Your task to perform on an android device: turn off smart reply in the gmail app Image 0: 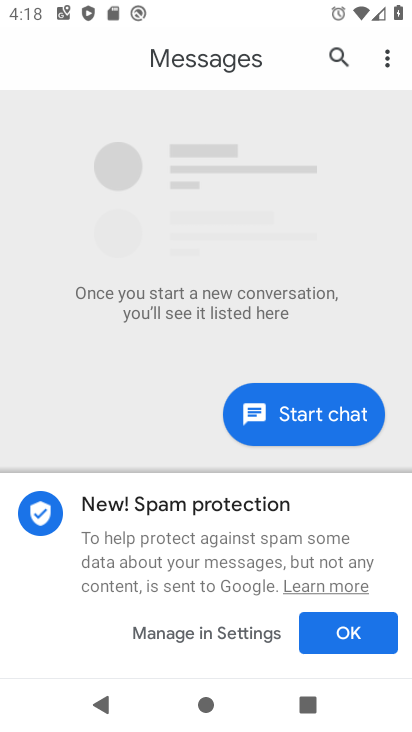
Step 0: press home button
Your task to perform on an android device: turn off smart reply in the gmail app Image 1: 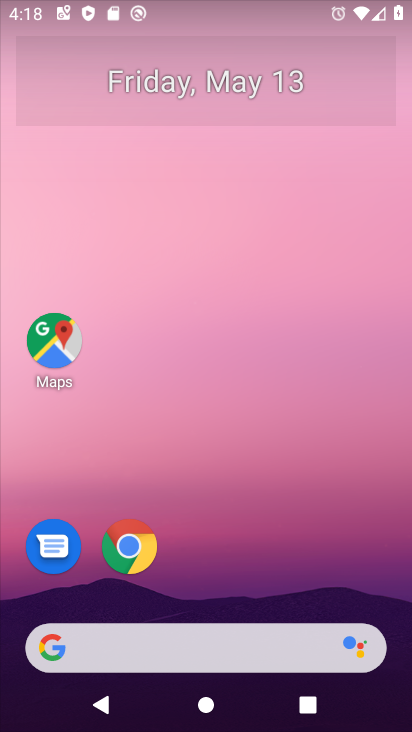
Step 1: drag from (210, 580) to (269, 8)
Your task to perform on an android device: turn off smart reply in the gmail app Image 2: 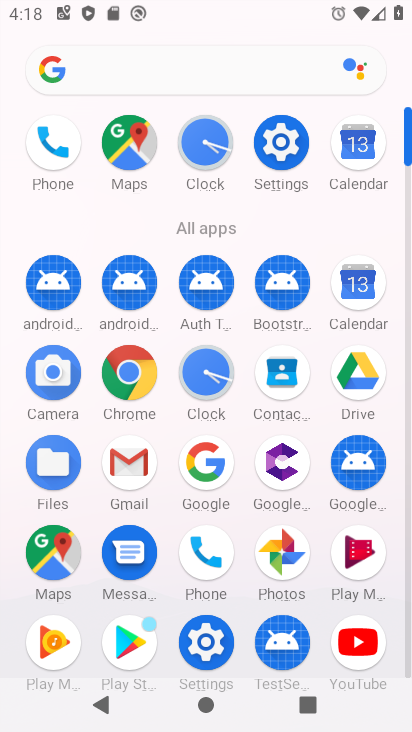
Step 2: click (121, 473)
Your task to perform on an android device: turn off smart reply in the gmail app Image 3: 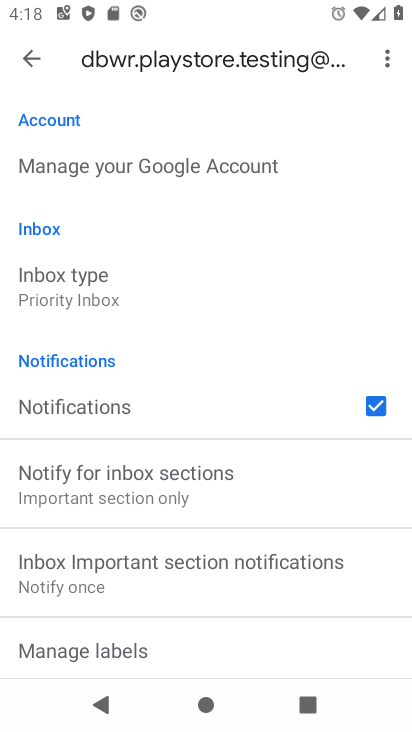
Step 3: drag from (210, 511) to (268, 98)
Your task to perform on an android device: turn off smart reply in the gmail app Image 4: 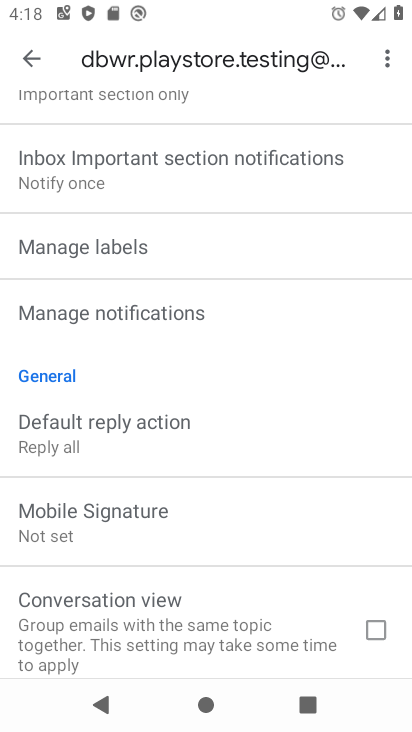
Step 4: drag from (216, 517) to (272, 41)
Your task to perform on an android device: turn off smart reply in the gmail app Image 5: 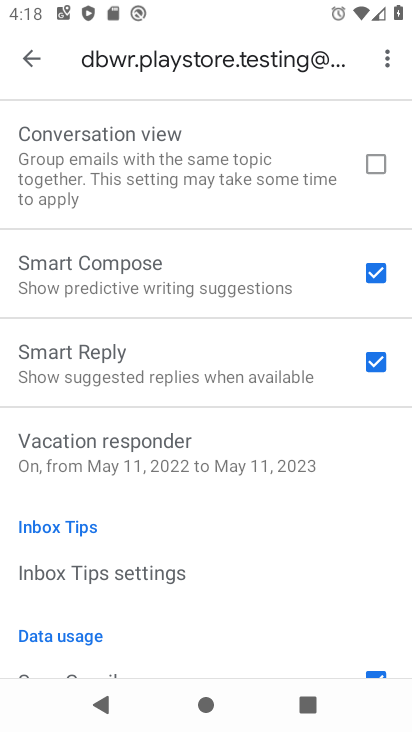
Step 5: click (375, 369)
Your task to perform on an android device: turn off smart reply in the gmail app Image 6: 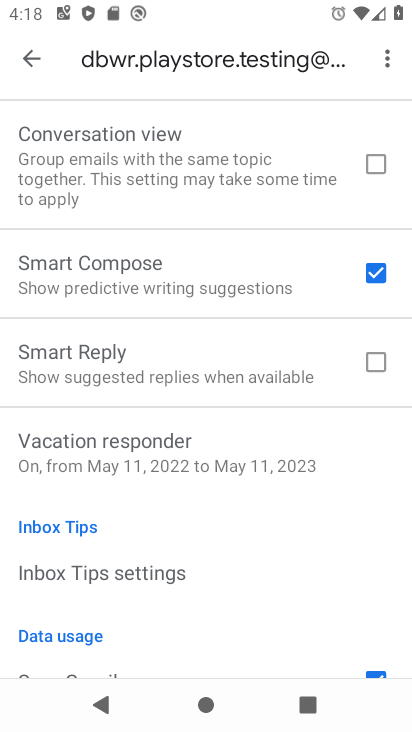
Step 6: task complete